Your task to perform on an android device: find snoozed emails in the gmail app Image 0: 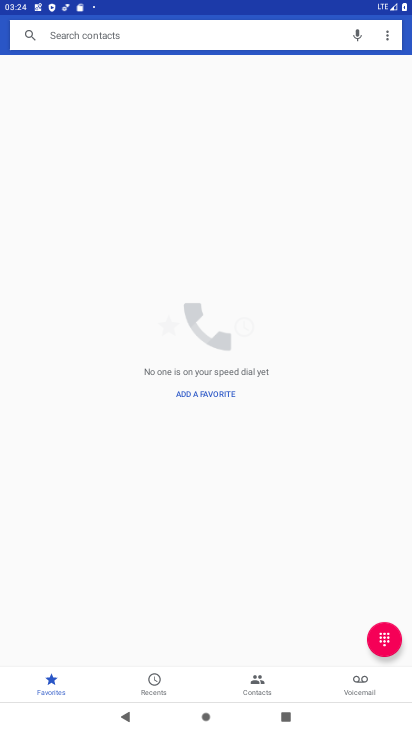
Step 0: press home button
Your task to perform on an android device: find snoozed emails in the gmail app Image 1: 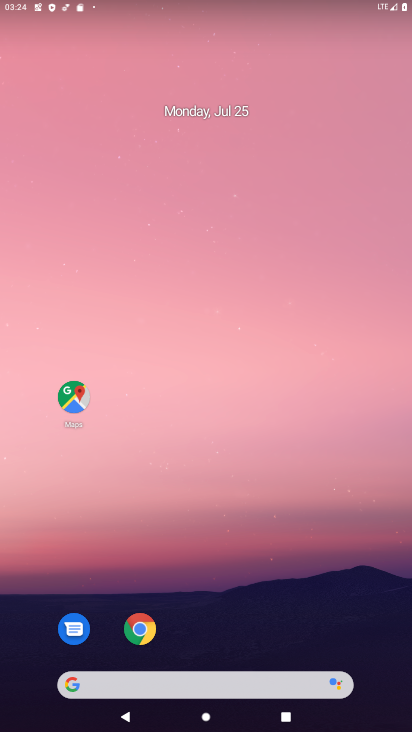
Step 1: drag from (257, 658) to (253, 0)
Your task to perform on an android device: find snoozed emails in the gmail app Image 2: 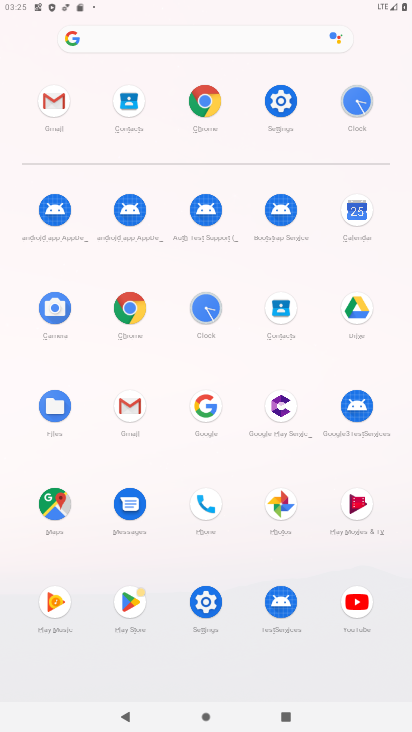
Step 2: click (51, 105)
Your task to perform on an android device: find snoozed emails in the gmail app Image 3: 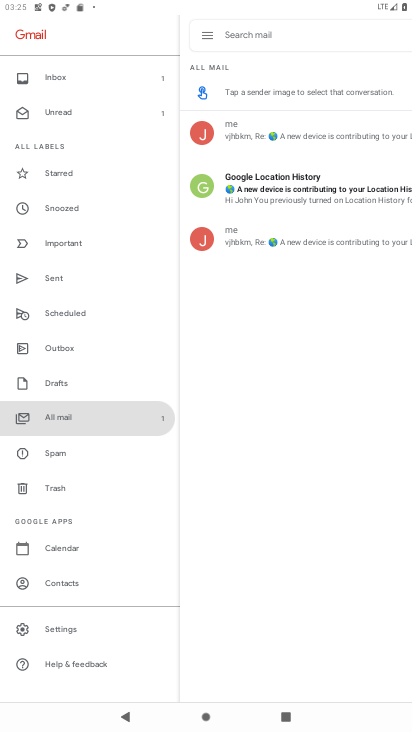
Step 3: click (56, 212)
Your task to perform on an android device: find snoozed emails in the gmail app Image 4: 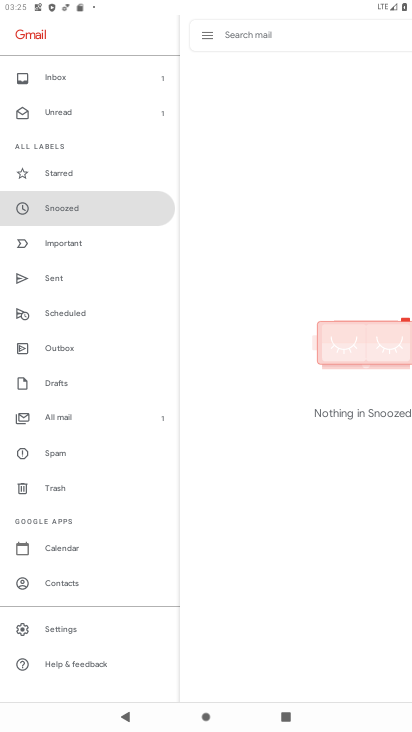
Step 4: task complete